Your task to perform on an android device: Search for Italian restaurants on Maps Image 0: 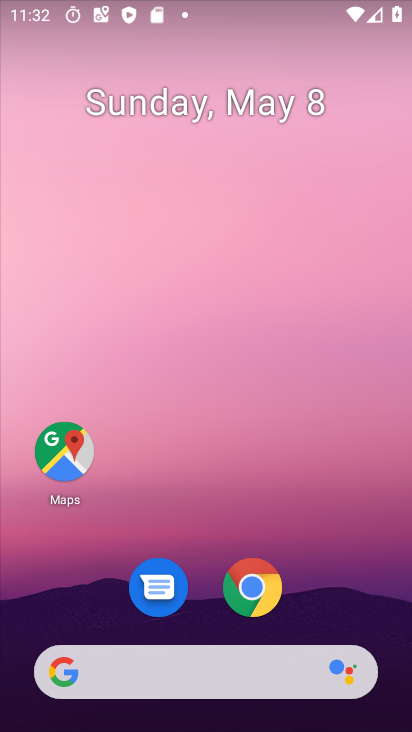
Step 0: click (123, 251)
Your task to perform on an android device: Search for Italian restaurants on Maps Image 1: 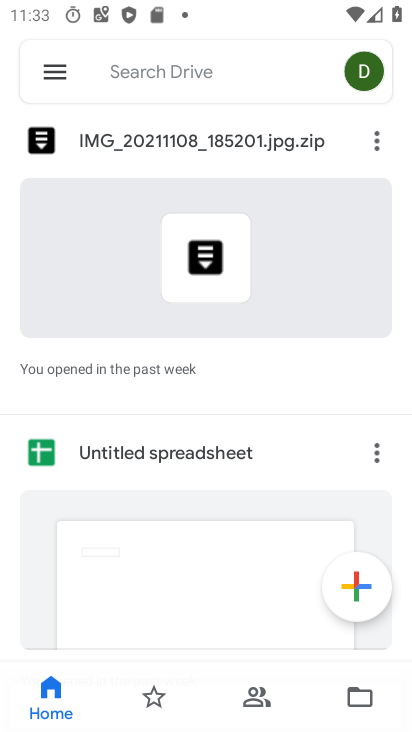
Step 1: press home button
Your task to perform on an android device: Search for Italian restaurants on Maps Image 2: 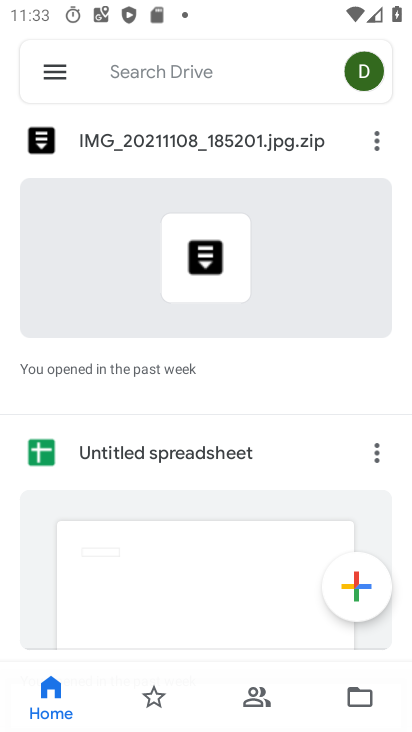
Step 2: press home button
Your task to perform on an android device: Search for Italian restaurants on Maps Image 3: 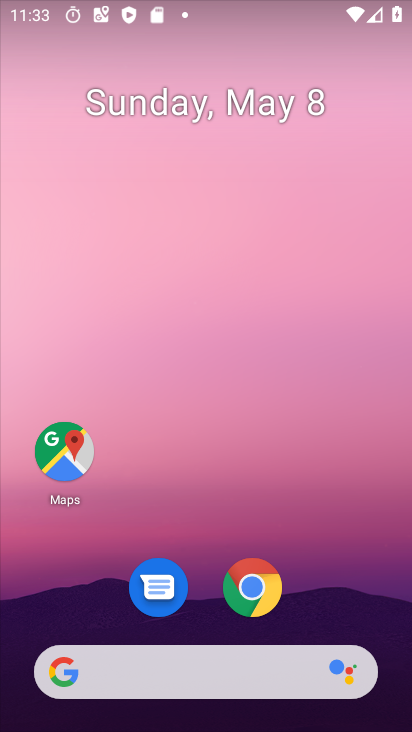
Step 3: drag from (276, 552) to (13, 151)
Your task to perform on an android device: Search for Italian restaurants on Maps Image 4: 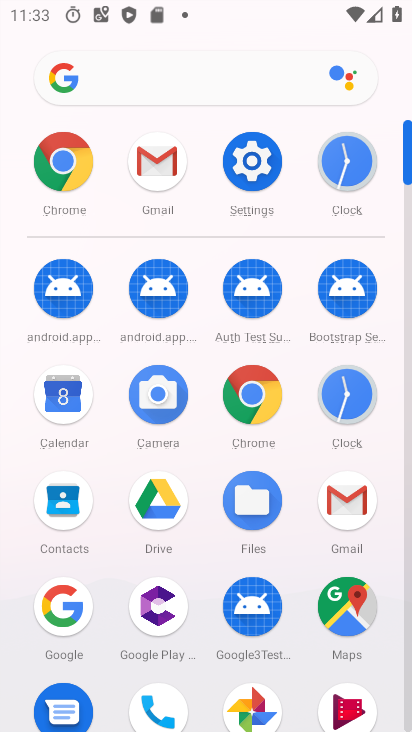
Step 4: click (347, 589)
Your task to perform on an android device: Search for Italian restaurants on Maps Image 5: 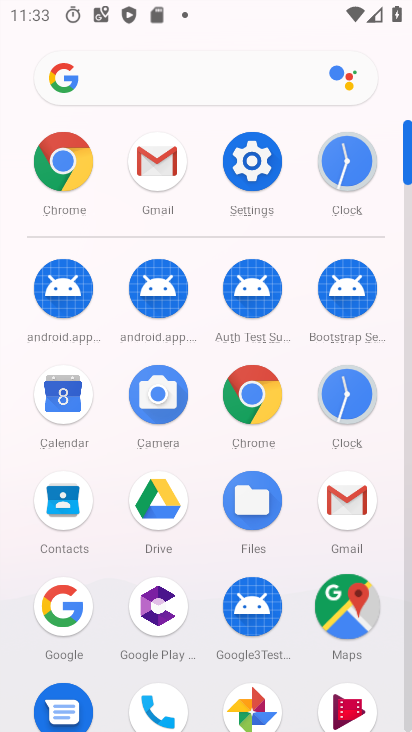
Step 5: click (353, 589)
Your task to perform on an android device: Search for Italian restaurants on Maps Image 6: 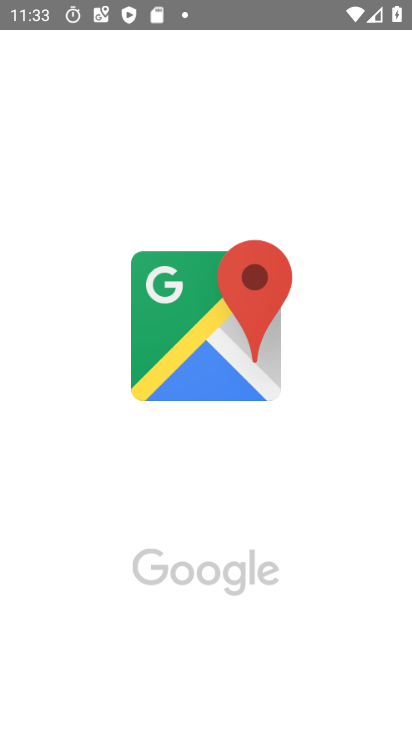
Step 6: click (347, 609)
Your task to perform on an android device: Search for Italian restaurants on Maps Image 7: 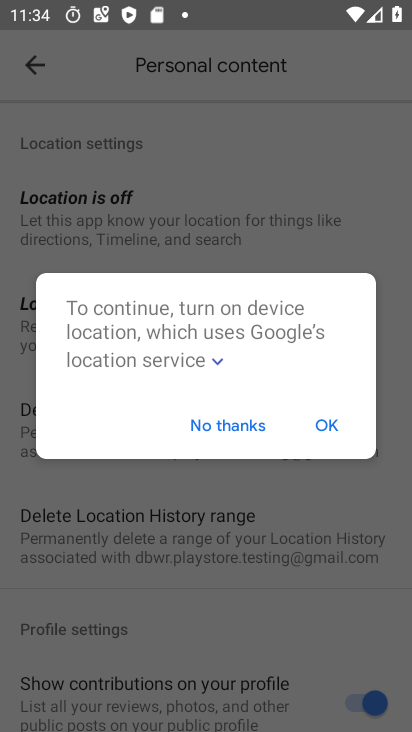
Step 7: click (246, 429)
Your task to perform on an android device: Search for Italian restaurants on Maps Image 8: 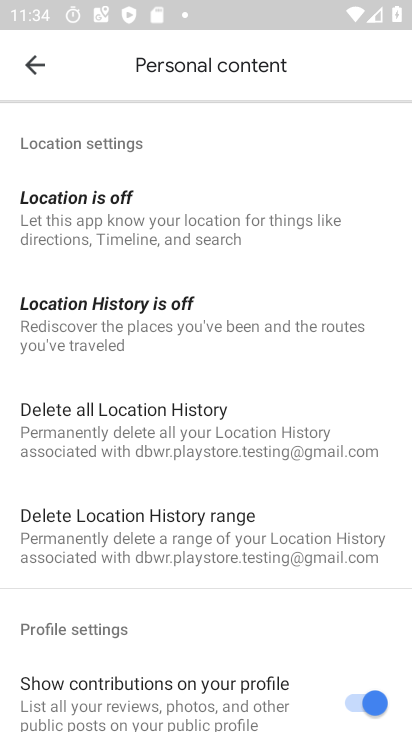
Step 8: drag from (132, 618) to (97, 268)
Your task to perform on an android device: Search for Italian restaurants on Maps Image 9: 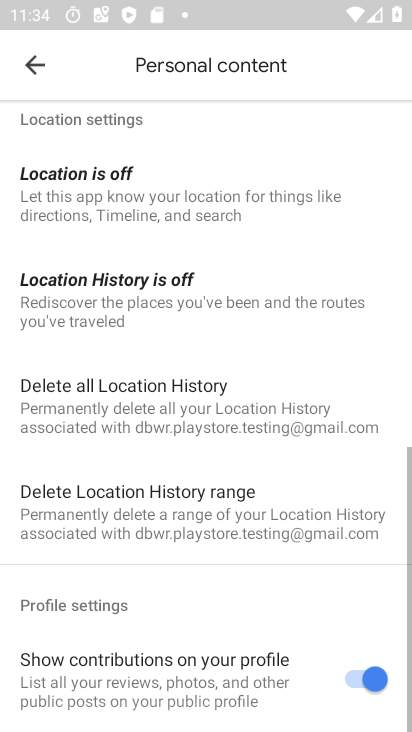
Step 9: drag from (175, 562) to (159, 221)
Your task to perform on an android device: Search for Italian restaurants on Maps Image 10: 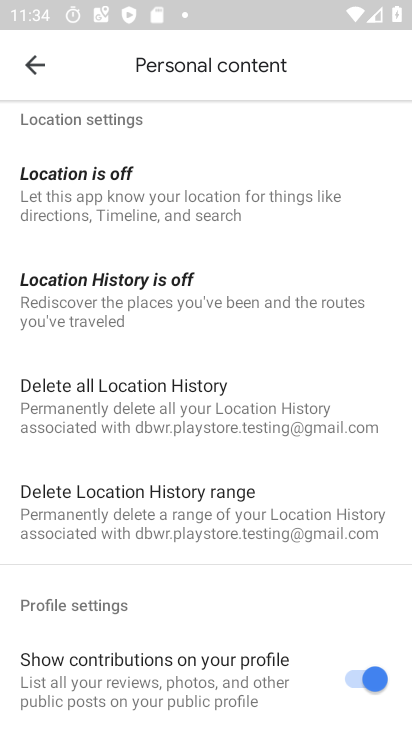
Step 10: click (36, 63)
Your task to perform on an android device: Search for Italian restaurants on Maps Image 11: 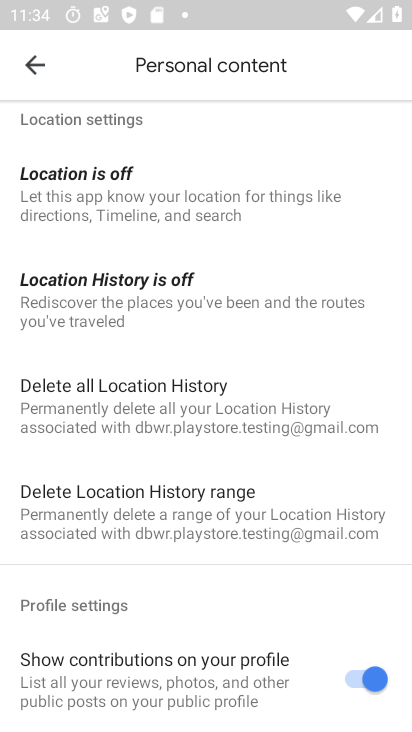
Step 11: click (36, 63)
Your task to perform on an android device: Search for Italian restaurants on Maps Image 12: 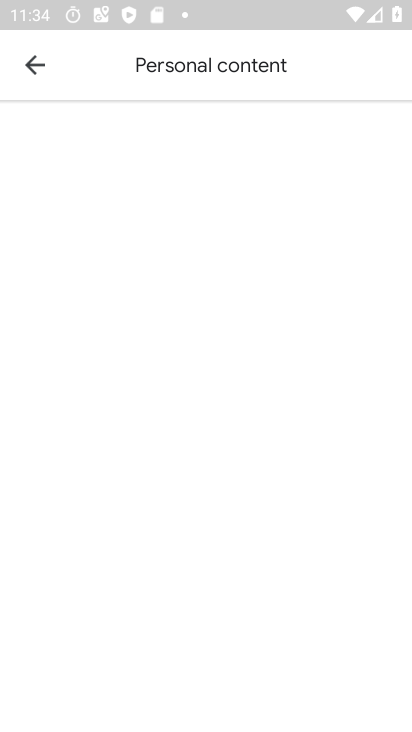
Step 12: click (33, 63)
Your task to perform on an android device: Search for Italian restaurants on Maps Image 13: 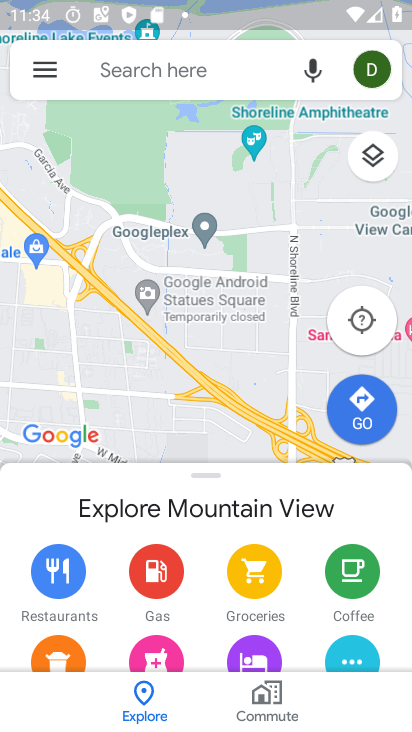
Step 13: press home button
Your task to perform on an android device: Search for Italian restaurants on Maps Image 14: 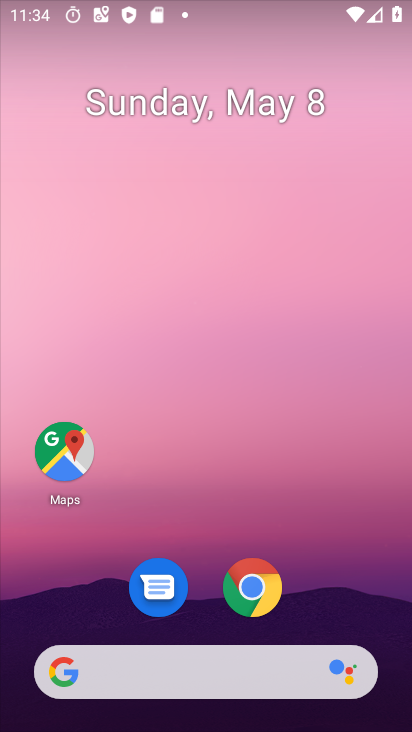
Step 14: click (55, 453)
Your task to perform on an android device: Search for Italian restaurants on Maps Image 15: 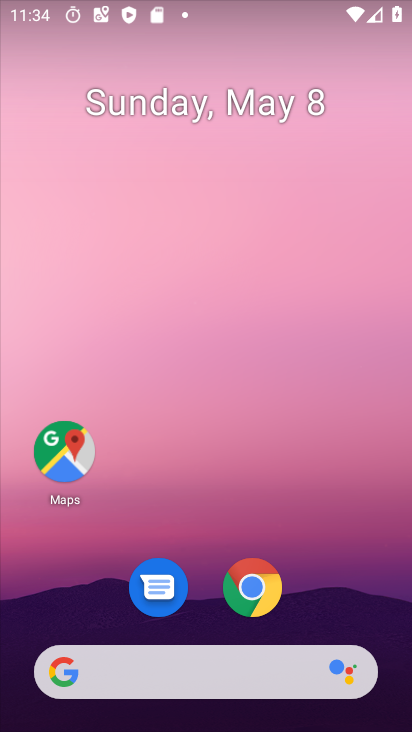
Step 15: click (58, 450)
Your task to perform on an android device: Search for Italian restaurants on Maps Image 16: 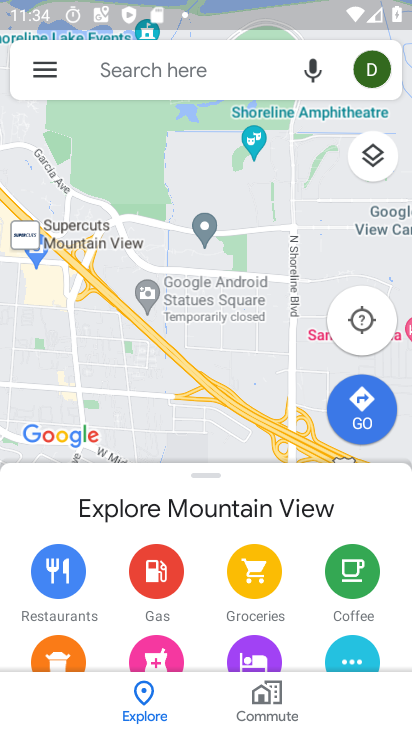
Step 16: click (103, 67)
Your task to perform on an android device: Search for Italian restaurants on Maps Image 17: 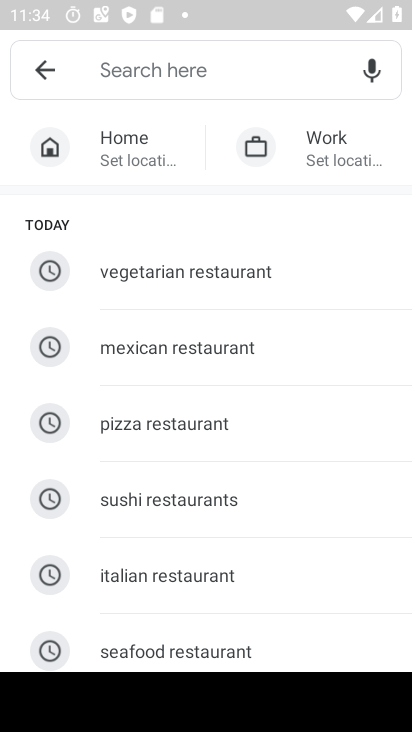
Step 17: click (207, 578)
Your task to perform on an android device: Search for Italian restaurants on Maps Image 18: 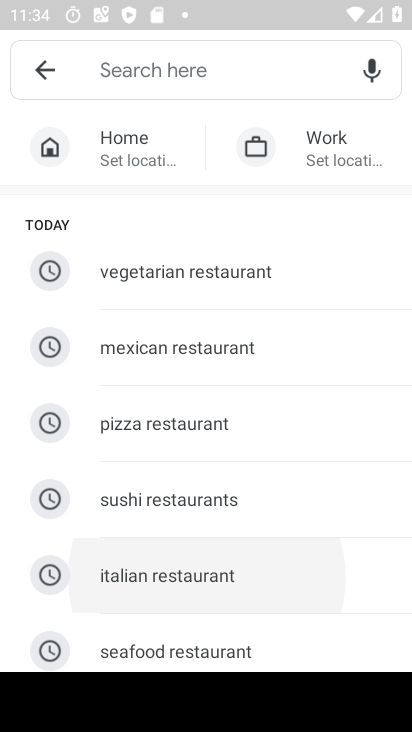
Step 18: click (207, 578)
Your task to perform on an android device: Search for Italian restaurants on Maps Image 19: 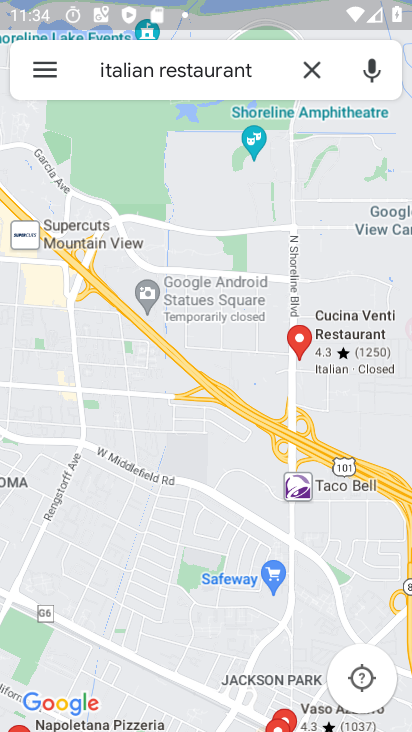
Step 19: task complete